Your task to perform on an android device: Do I have any events this weekend? Image 0: 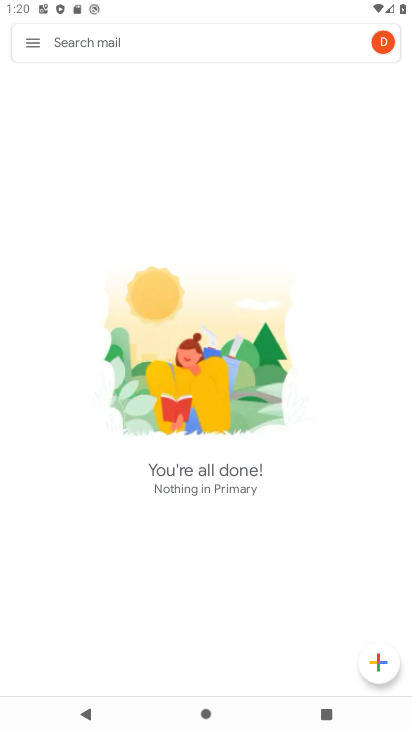
Step 0: press back button
Your task to perform on an android device: Do I have any events this weekend? Image 1: 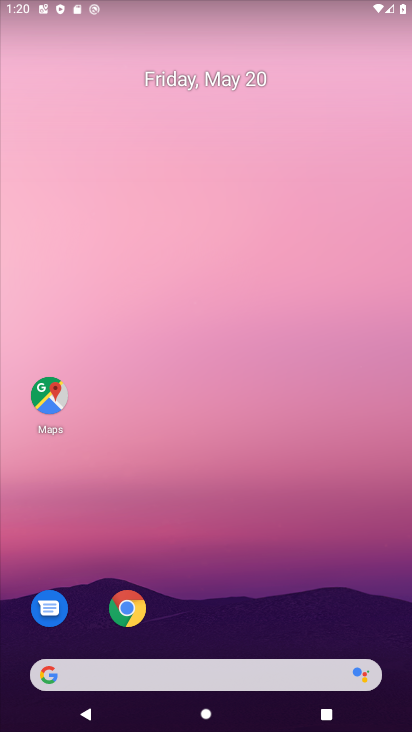
Step 1: drag from (196, 589) to (320, 72)
Your task to perform on an android device: Do I have any events this weekend? Image 2: 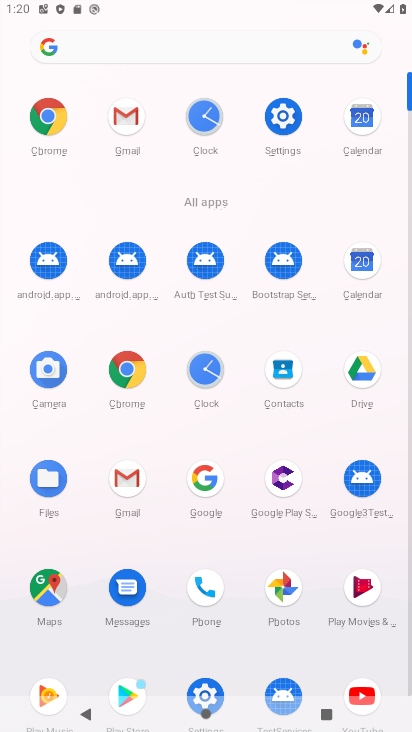
Step 2: click (357, 262)
Your task to perform on an android device: Do I have any events this weekend? Image 3: 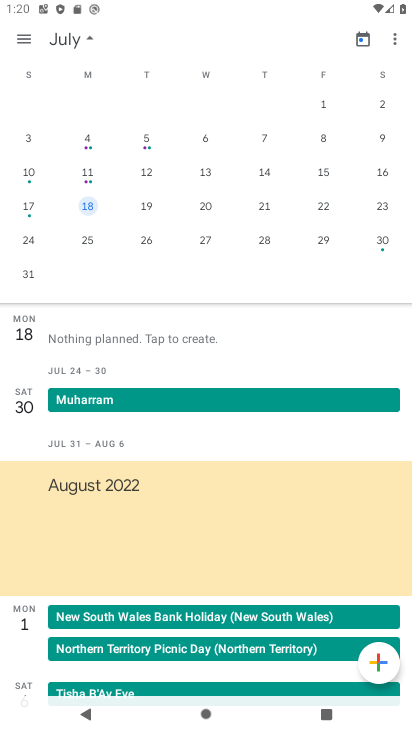
Step 3: drag from (45, 178) to (380, 188)
Your task to perform on an android device: Do I have any events this weekend? Image 4: 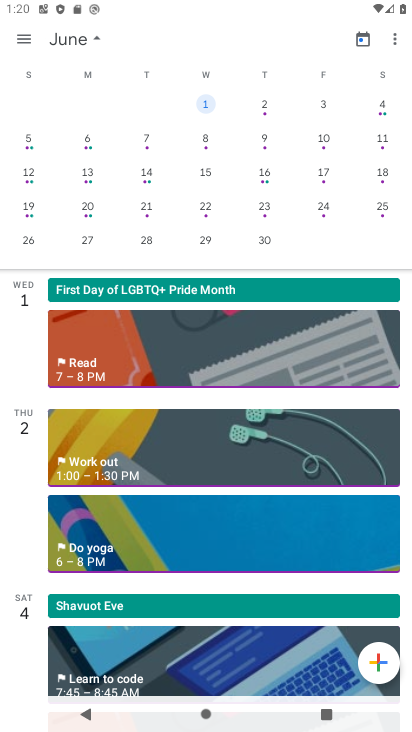
Step 4: click (5, 168)
Your task to perform on an android device: Do I have any events this weekend? Image 5: 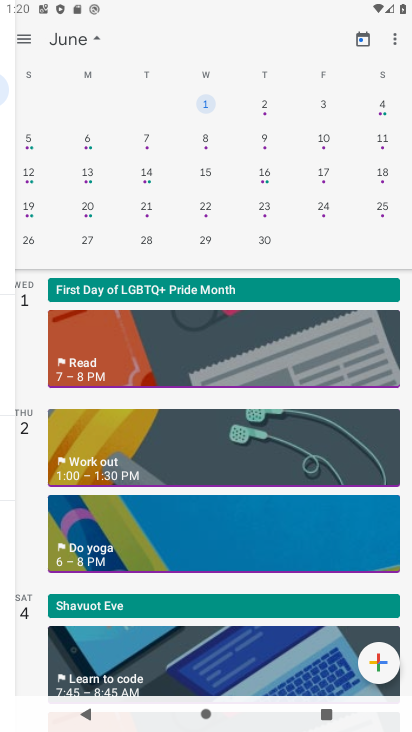
Step 5: drag from (20, 168) to (384, 180)
Your task to perform on an android device: Do I have any events this weekend? Image 6: 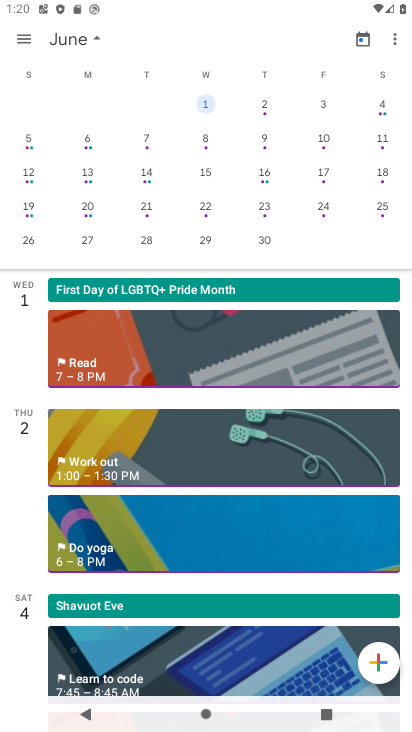
Step 6: drag from (43, 177) to (405, 177)
Your task to perform on an android device: Do I have any events this weekend? Image 7: 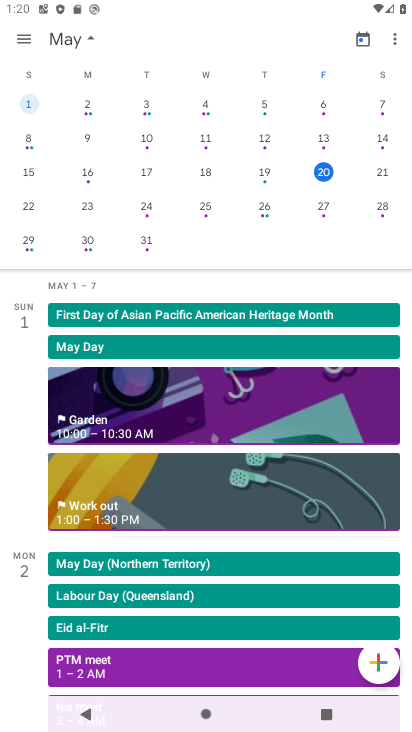
Step 7: click (377, 170)
Your task to perform on an android device: Do I have any events this weekend? Image 8: 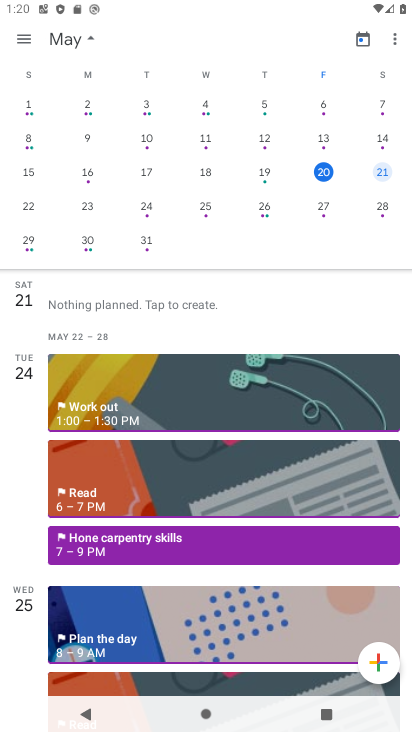
Step 8: task complete